Your task to perform on an android device: check data usage Image 0: 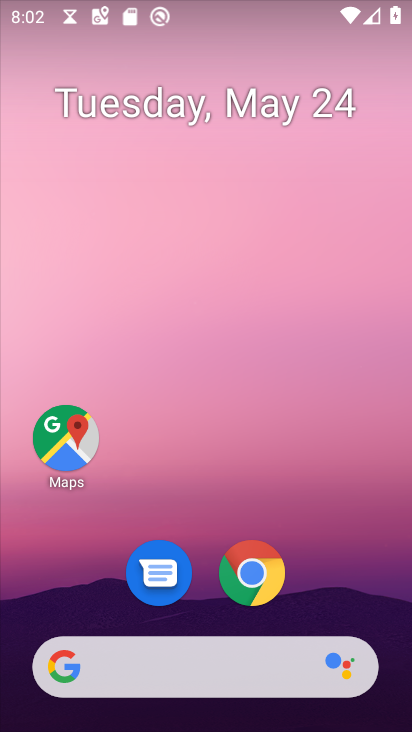
Step 0: drag from (368, 476) to (332, 7)
Your task to perform on an android device: check data usage Image 1: 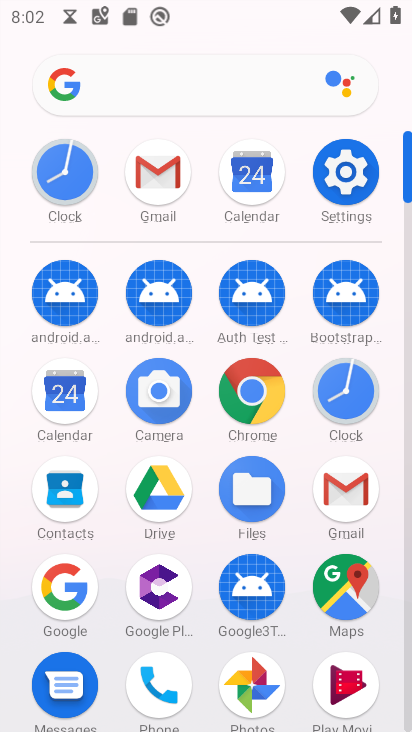
Step 1: click (350, 190)
Your task to perform on an android device: check data usage Image 2: 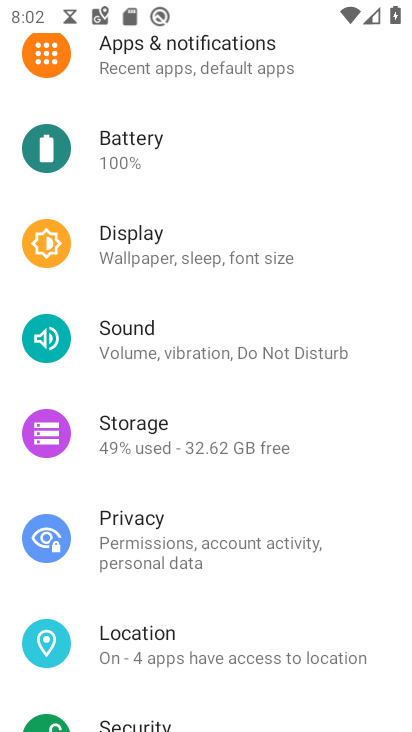
Step 2: drag from (237, 162) to (269, 673)
Your task to perform on an android device: check data usage Image 3: 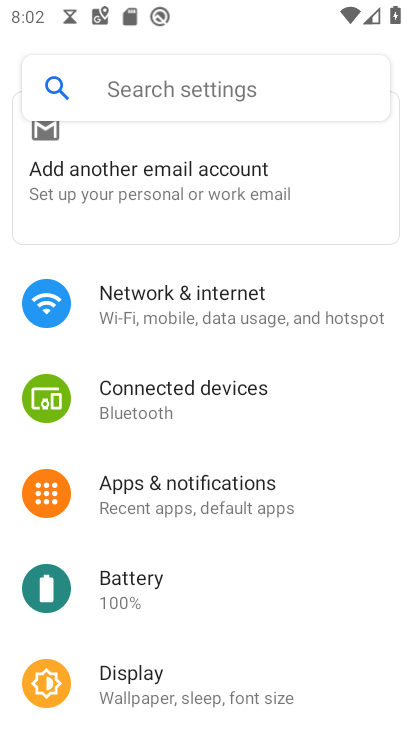
Step 3: drag from (272, 239) to (292, 630)
Your task to perform on an android device: check data usage Image 4: 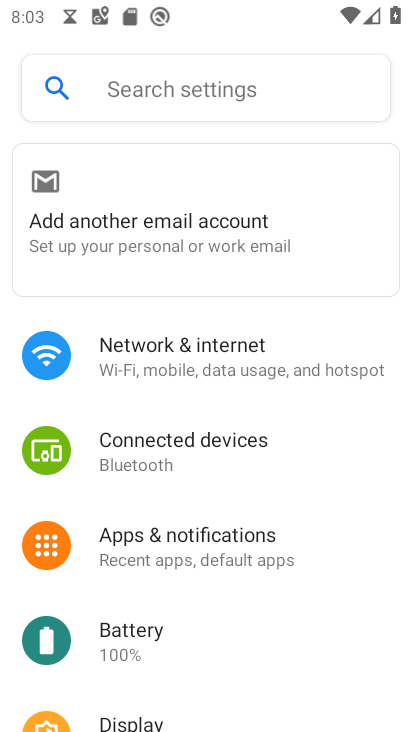
Step 4: click (159, 351)
Your task to perform on an android device: check data usage Image 5: 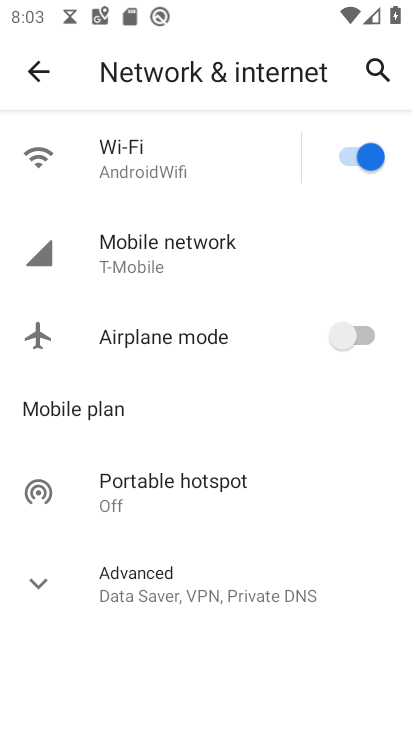
Step 5: click (165, 270)
Your task to perform on an android device: check data usage Image 6: 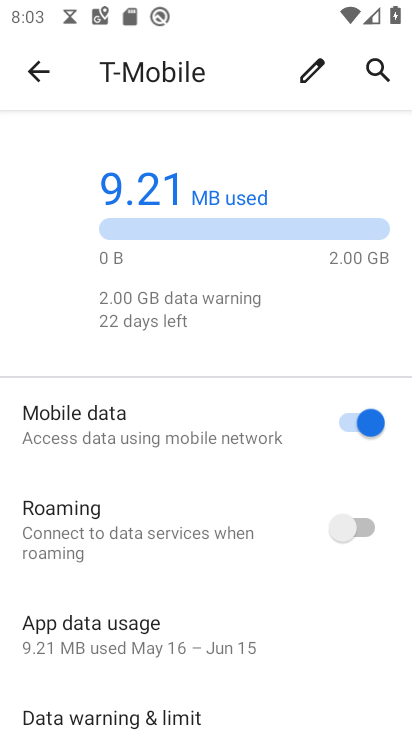
Step 6: task complete